Your task to perform on an android device: toggle location history Image 0: 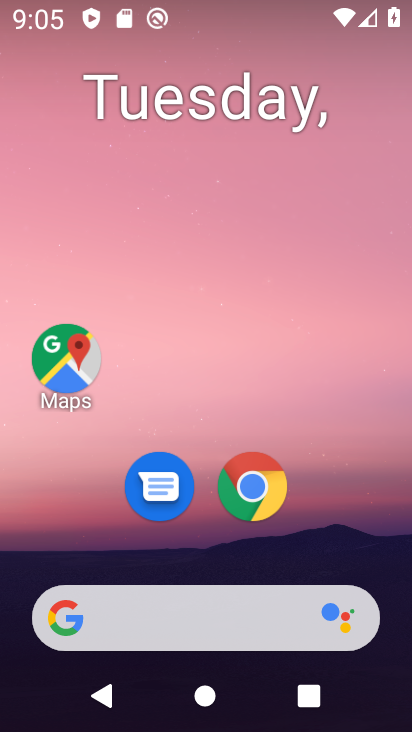
Step 0: press home button
Your task to perform on an android device: toggle location history Image 1: 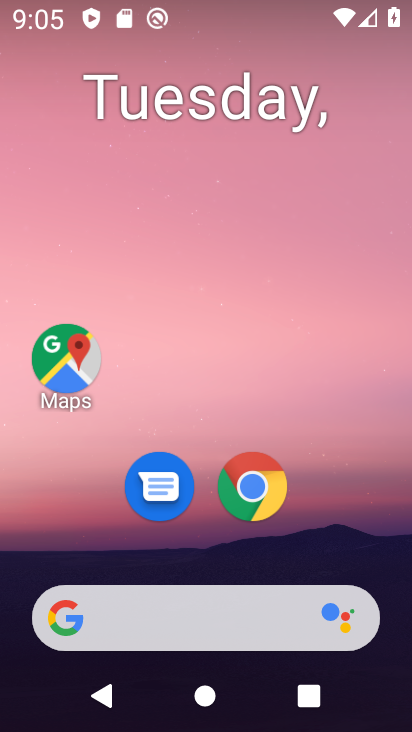
Step 1: drag from (377, 506) to (363, 212)
Your task to perform on an android device: toggle location history Image 2: 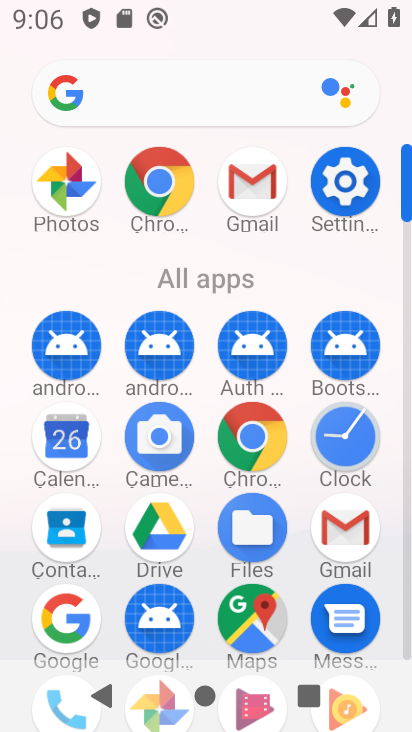
Step 2: click (346, 200)
Your task to perform on an android device: toggle location history Image 3: 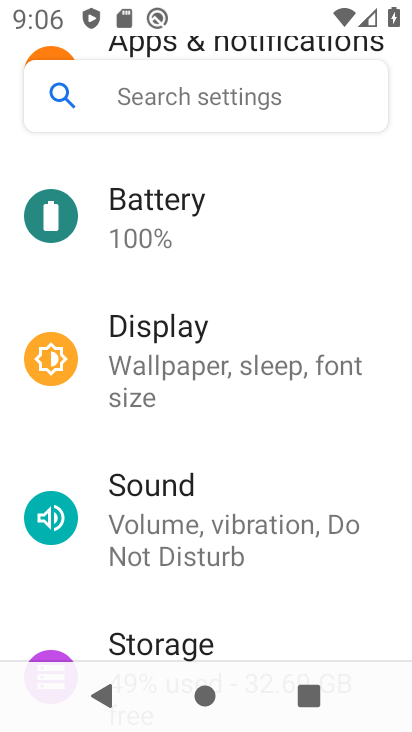
Step 3: drag from (346, 200) to (347, 250)
Your task to perform on an android device: toggle location history Image 4: 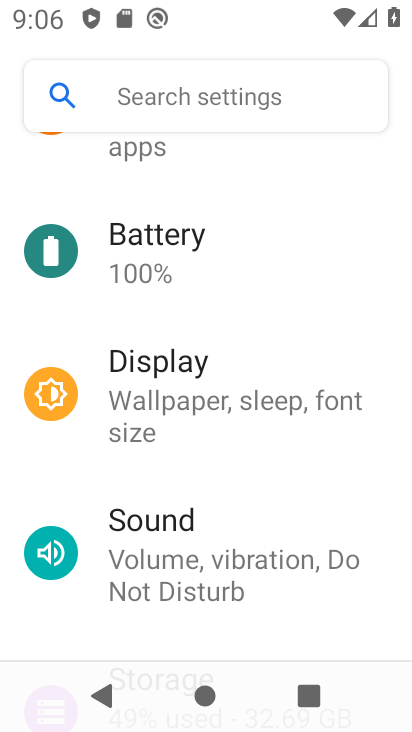
Step 4: drag from (359, 184) to (360, 267)
Your task to perform on an android device: toggle location history Image 5: 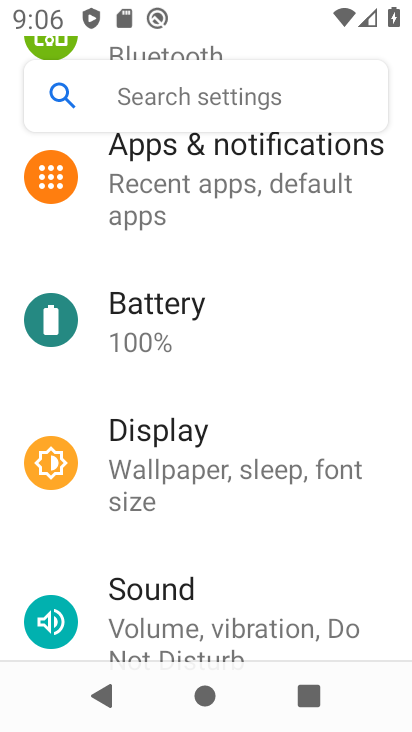
Step 5: drag from (356, 219) to (355, 284)
Your task to perform on an android device: toggle location history Image 6: 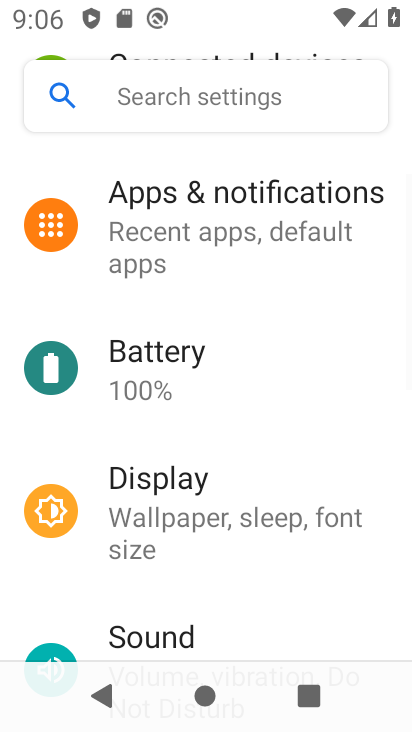
Step 6: drag from (363, 245) to (363, 283)
Your task to perform on an android device: toggle location history Image 7: 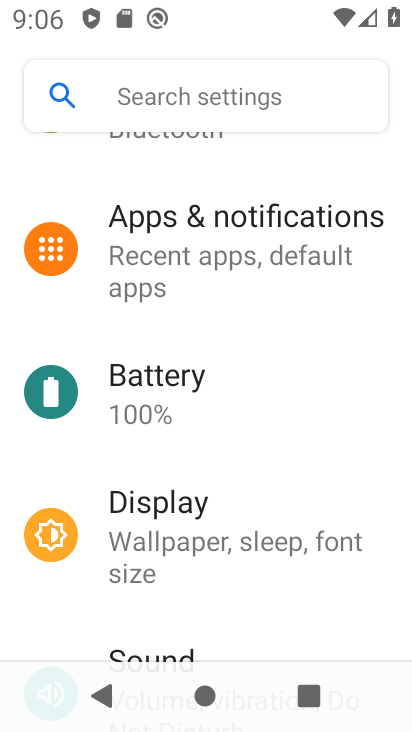
Step 7: drag from (377, 186) to (375, 307)
Your task to perform on an android device: toggle location history Image 8: 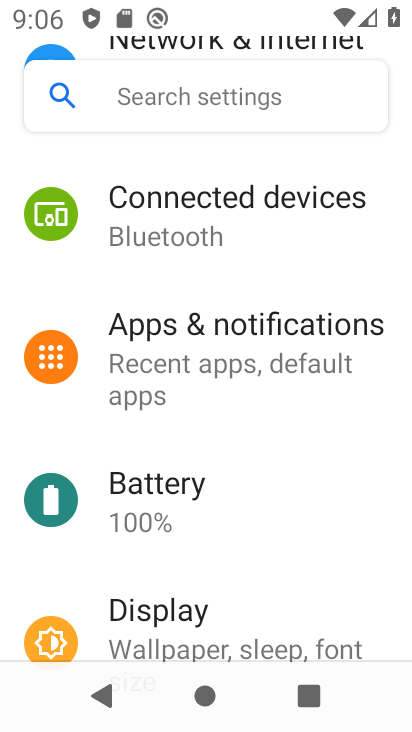
Step 8: drag from (375, 167) to (372, 280)
Your task to perform on an android device: toggle location history Image 9: 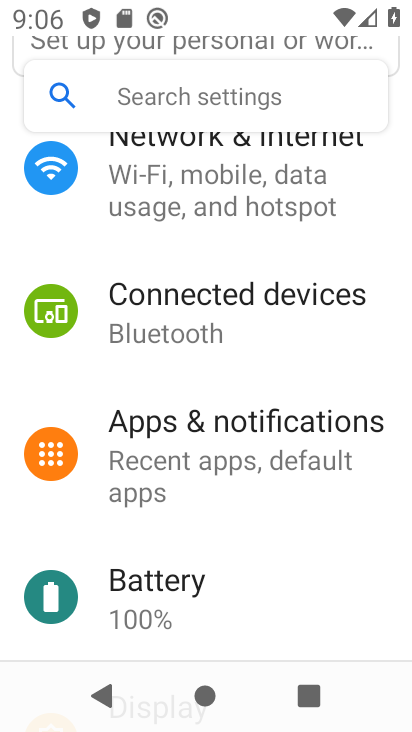
Step 9: drag from (348, 556) to (363, 505)
Your task to perform on an android device: toggle location history Image 10: 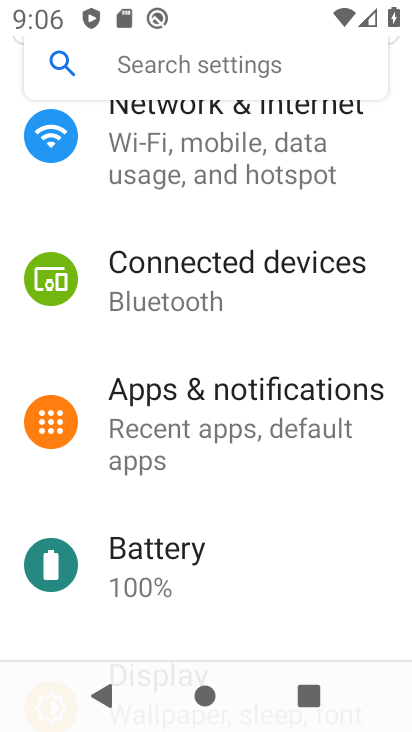
Step 10: drag from (373, 573) to (377, 483)
Your task to perform on an android device: toggle location history Image 11: 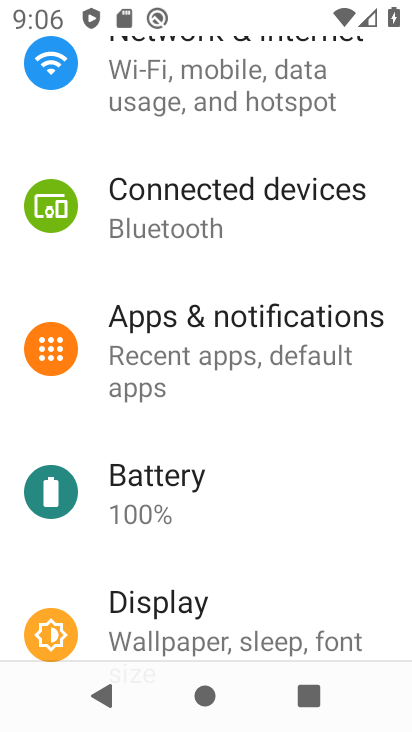
Step 11: drag from (366, 580) to (375, 478)
Your task to perform on an android device: toggle location history Image 12: 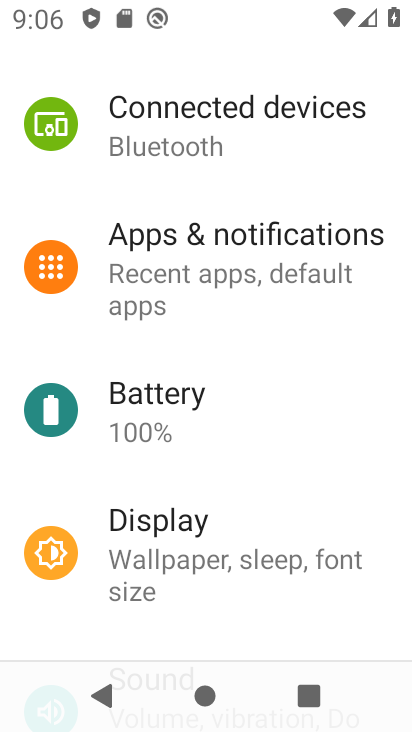
Step 12: drag from (379, 537) to (388, 384)
Your task to perform on an android device: toggle location history Image 13: 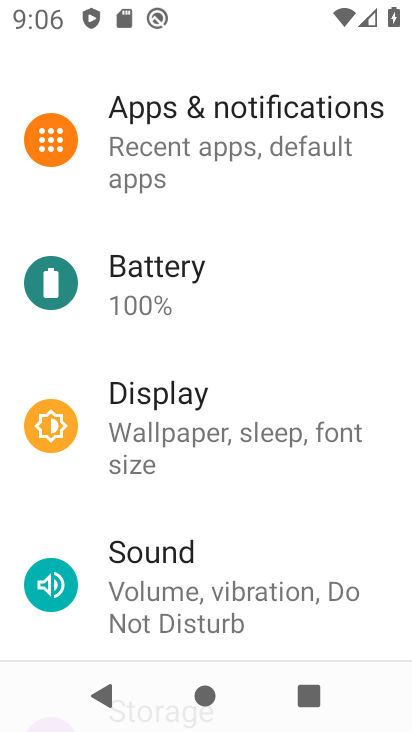
Step 13: drag from (365, 528) to (366, 434)
Your task to perform on an android device: toggle location history Image 14: 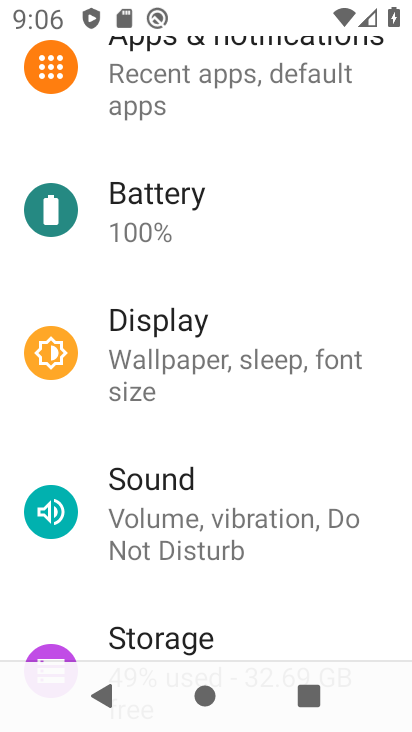
Step 14: drag from (378, 548) to (380, 412)
Your task to perform on an android device: toggle location history Image 15: 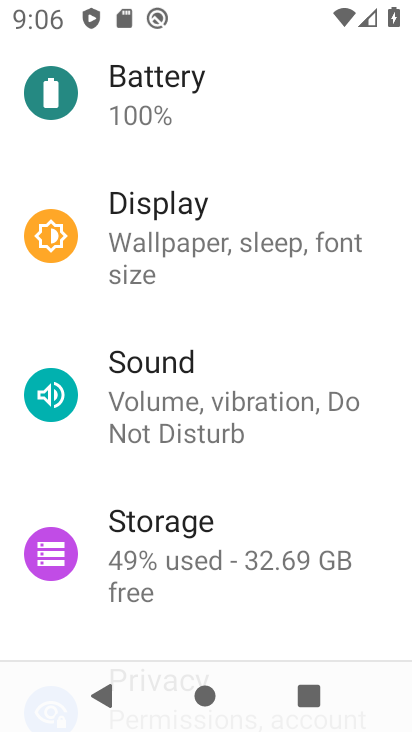
Step 15: drag from (356, 487) to (355, 388)
Your task to perform on an android device: toggle location history Image 16: 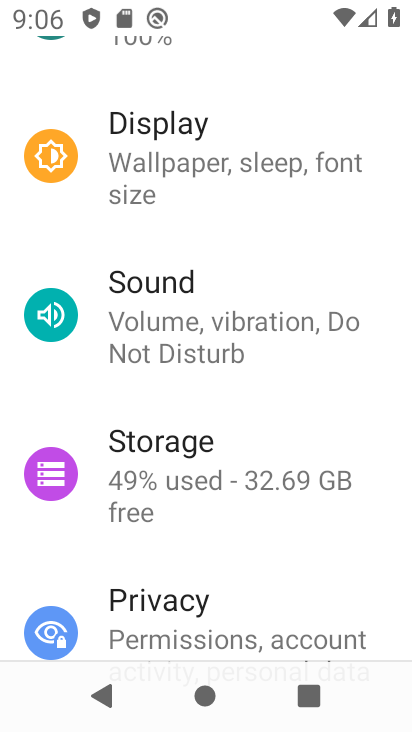
Step 16: drag from (357, 517) to (358, 433)
Your task to perform on an android device: toggle location history Image 17: 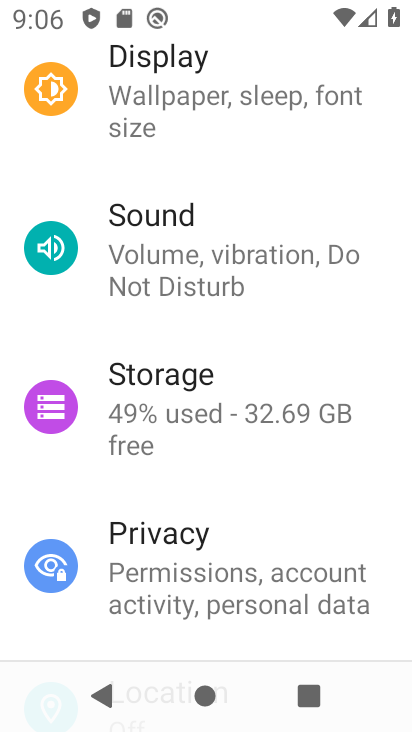
Step 17: drag from (352, 521) to (357, 433)
Your task to perform on an android device: toggle location history Image 18: 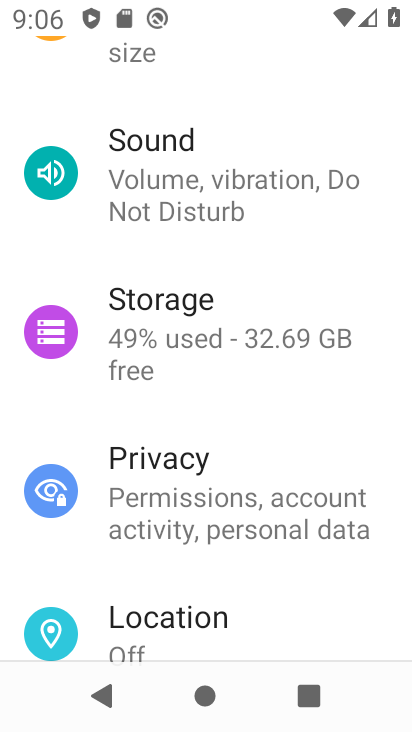
Step 18: drag from (354, 533) to (354, 440)
Your task to perform on an android device: toggle location history Image 19: 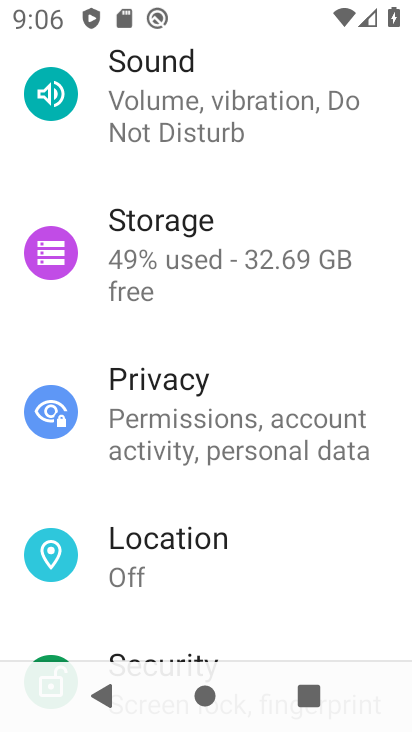
Step 19: drag from (348, 515) to (347, 413)
Your task to perform on an android device: toggle location history Image 20: 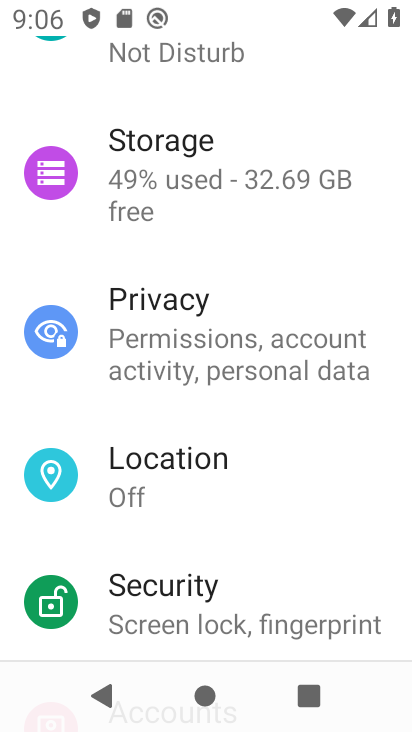
Step 20: click (327, 479)
Your task to perform on an android device: toggle location history Image 21: 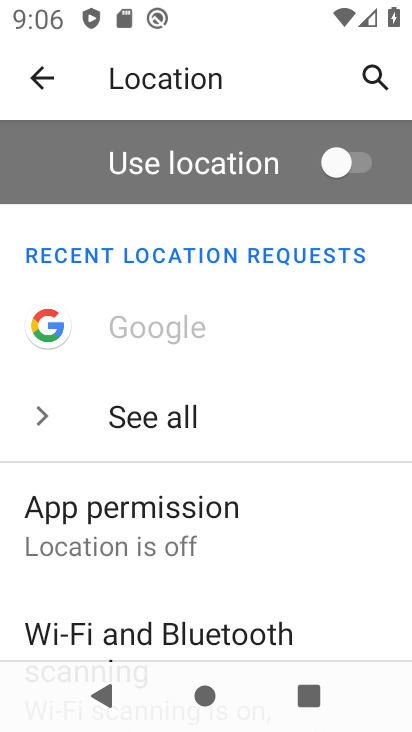
Step 21: drag from (332, 542) to (339, 459)
Your task to perform on an android device: toggle location history Image 22: 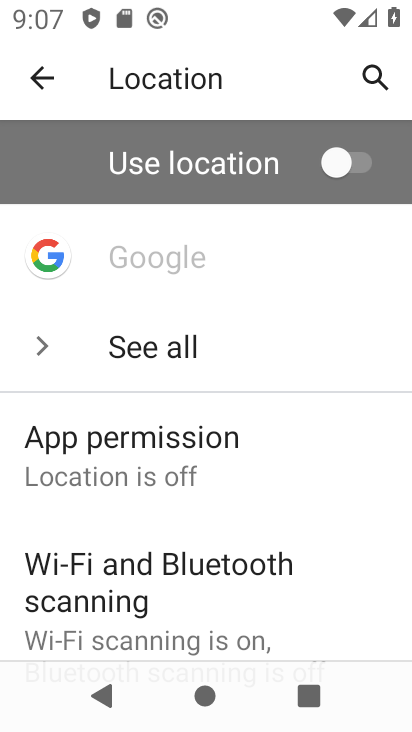
Step 22: drag from (338, 550) to (340, 478)
Your task to perform on an android device: toggle location history Image 23: 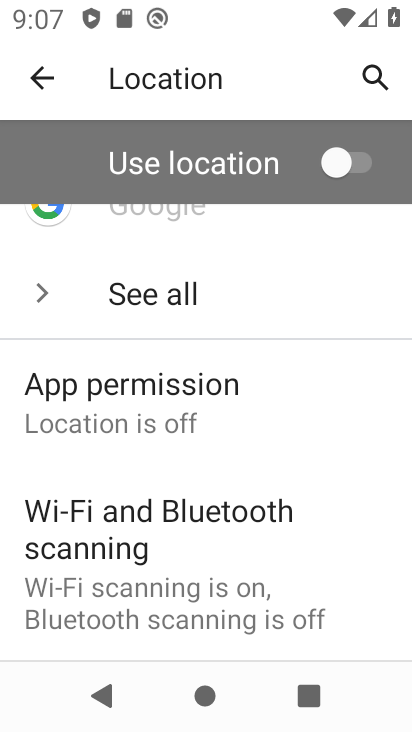
Step 23: drag from (330, 554) to (337, 491)
Your task to perform on an android device: toggle location history Image 24: 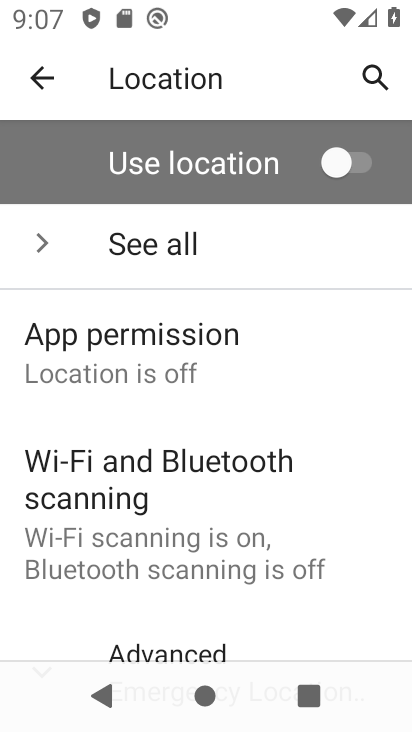
Step 24: drag from (343, 591) to (362, 492)
Your task to perform on an android device: toggle location history Image 25: 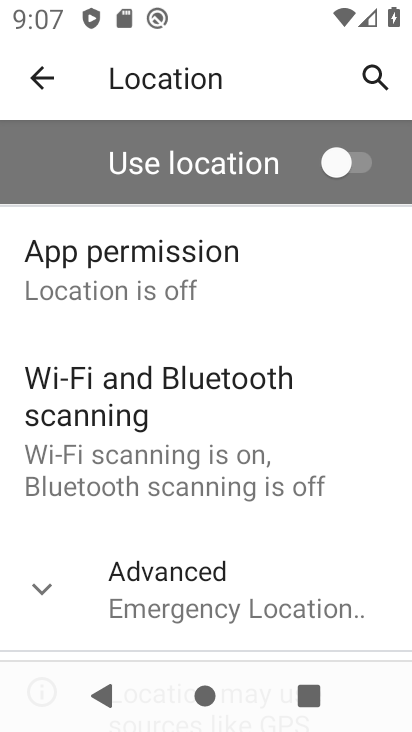
Step 25: click (320, 572)
Your task to perform on an android device: toggle location history Image 26: 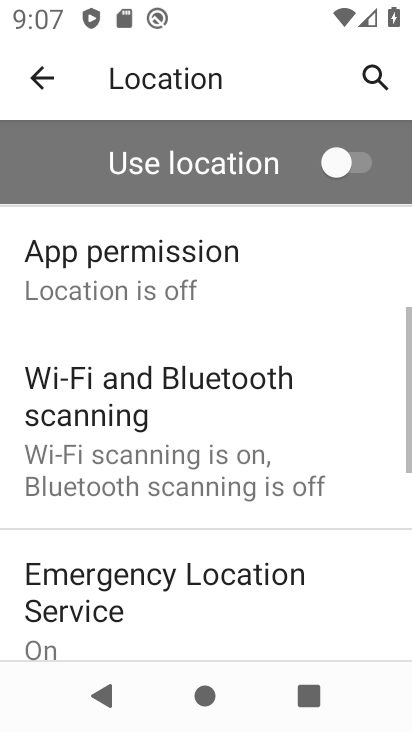
Step 26: drag from (329, 599) to (343, 515)
Your task to perform on an android device: toggle location history Image 27: 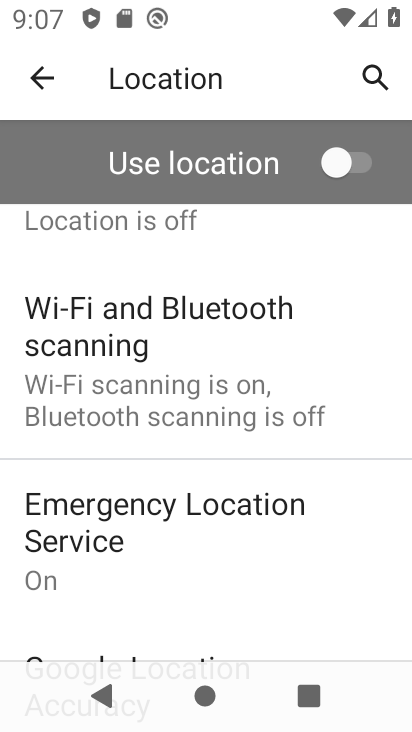
Step 27: drag from (329, 601) to (345, 516)
Your task to perform on an android device: toggle location history Image 28: 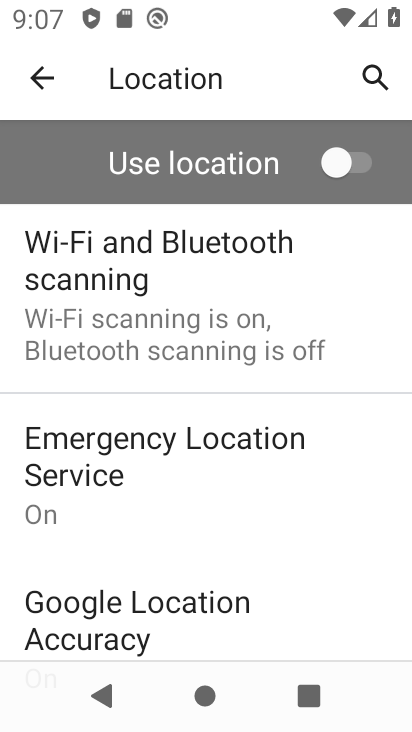
Step 28: drag from (330, 604) to (330, 456)
Your task to perform on an android device: toggle location history Image 29: 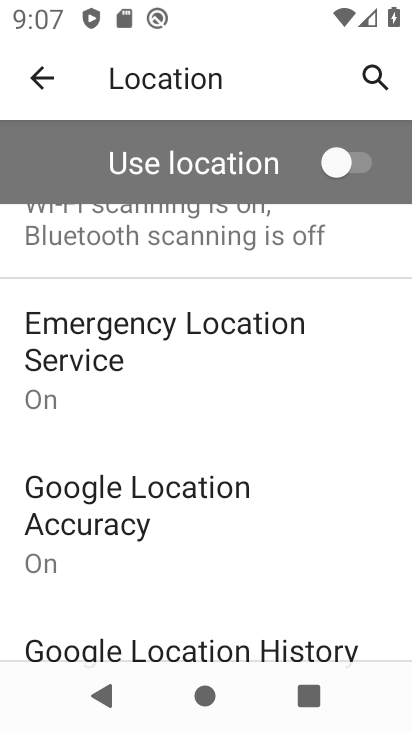
Step 29: drag from (307, 578) to (319, 467)
Your task to perform on an android device: toggle location history Image 30: 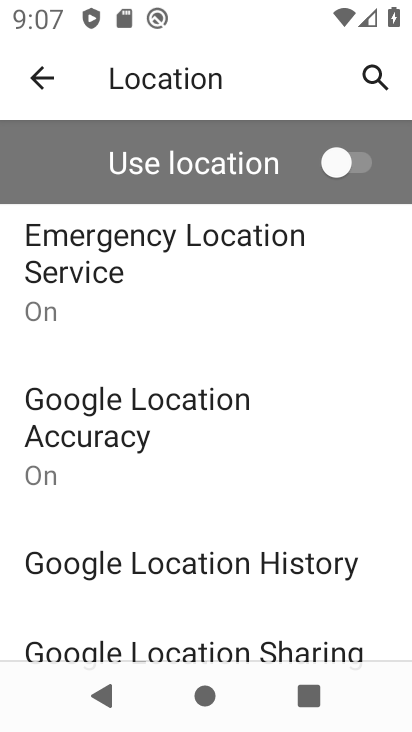
Step 30: click (284, 587)
Your task to perform on an android device: toggle location history Image 31: 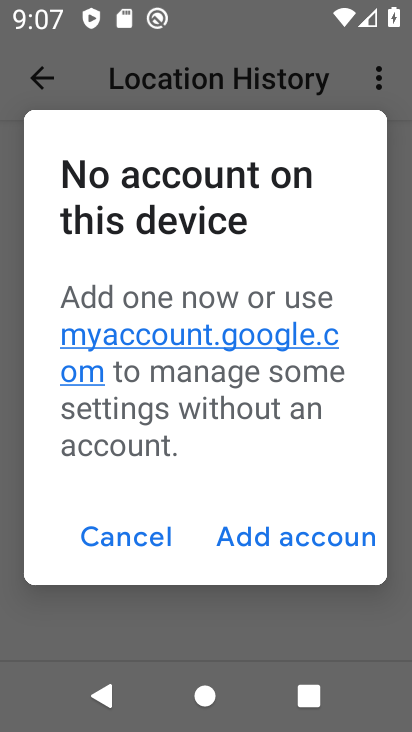
Step 31: click (156, 541)
Your task to perform on an android device: toggle location history Image 32: 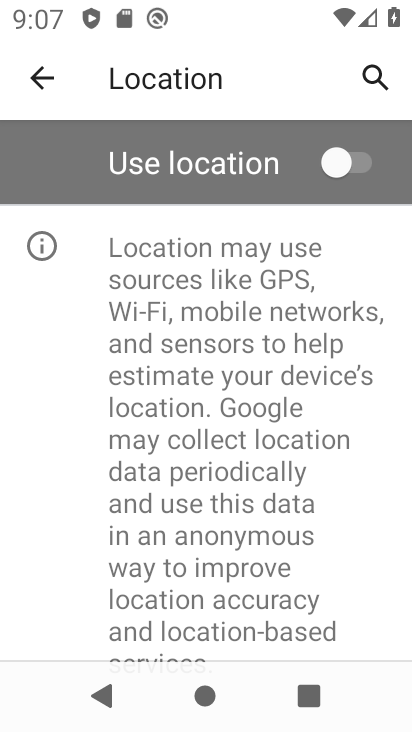
Step 32: task complete